Your task to perform on an android device: Open maps Image 0: 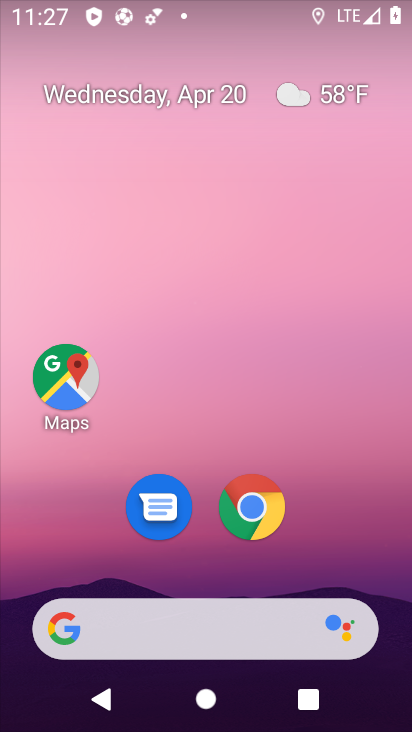
Step 0: drag from (359, 552) to (345, 95)
Your task to perform on an android device: Open maps Image 1: 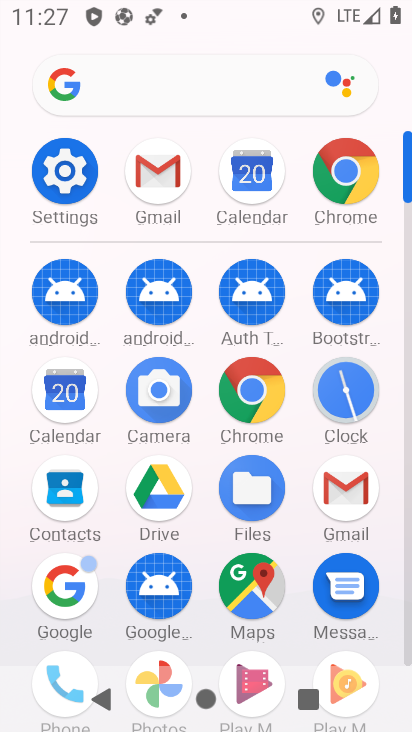
Step 1: click (261, 599)
Your task to perform on an android device: Open maps Image 2: 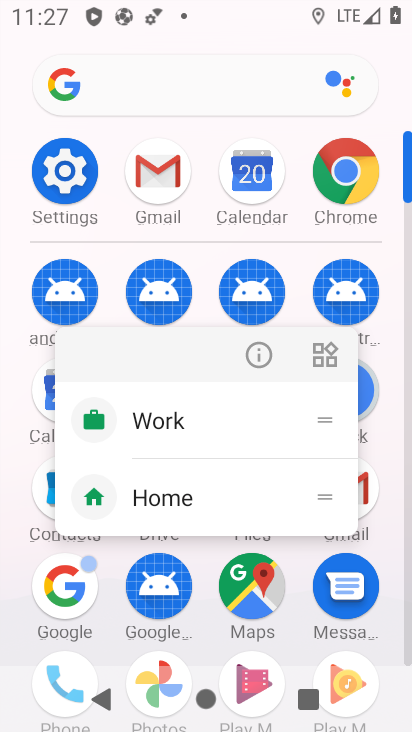
Step 2: click (270, 597)
Your task to perform on an android device: Open maps Image 3: 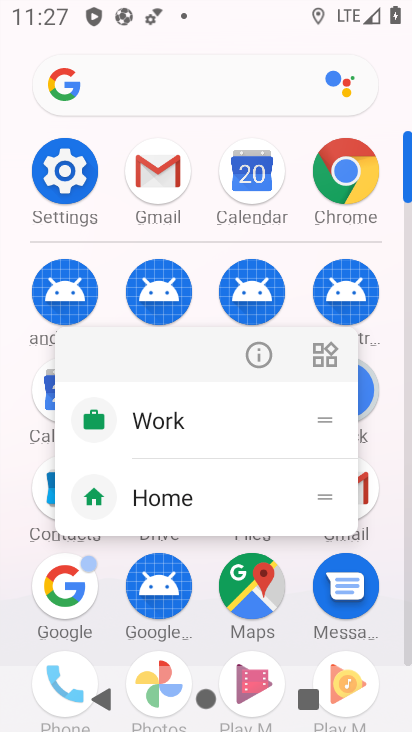
Step 3: click (248, 573)
Your task to perform on an android device: Open maps Image 4: 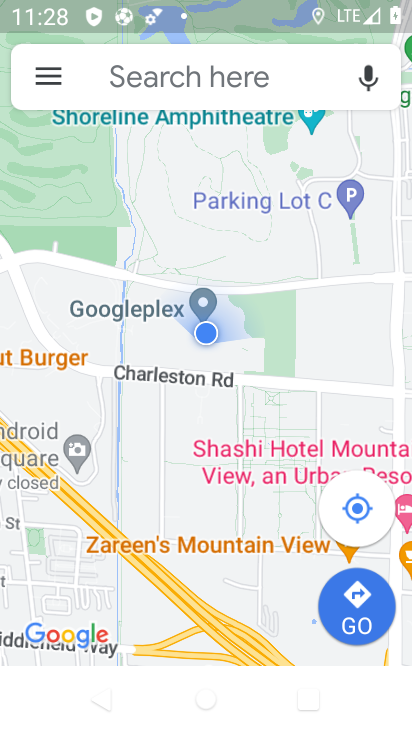
Step 4: task complete